Your task to perform on an android device: open sync settings in chrome Image 0: 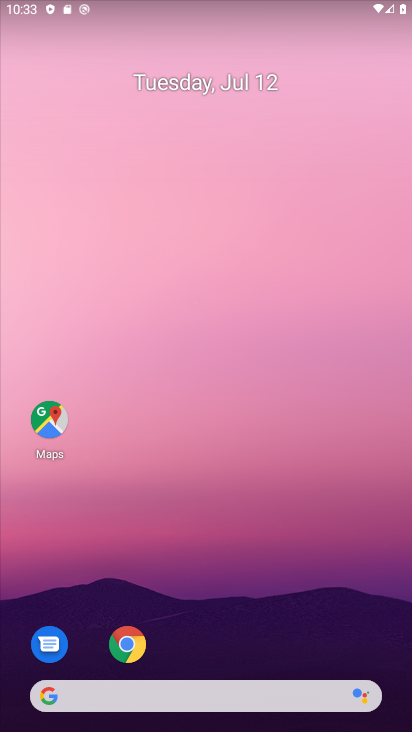
Step 0: click (125, 642)
Your task to perform on an android device: open sync settings in chrome Image 1: 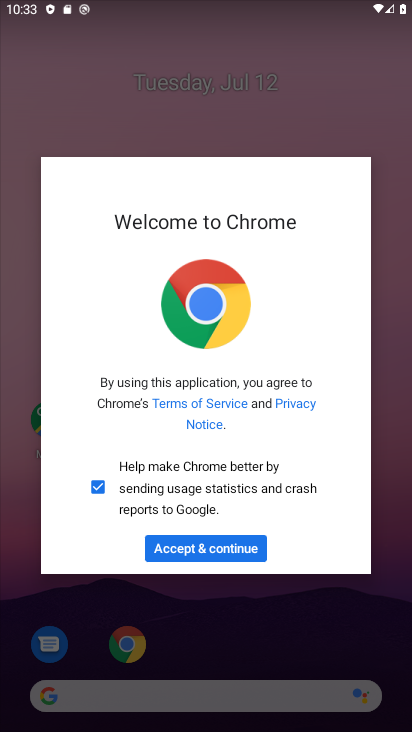
Step 1: click (192, 542)
Your task to perform on an android device: open sync settings in chrome Image 2: 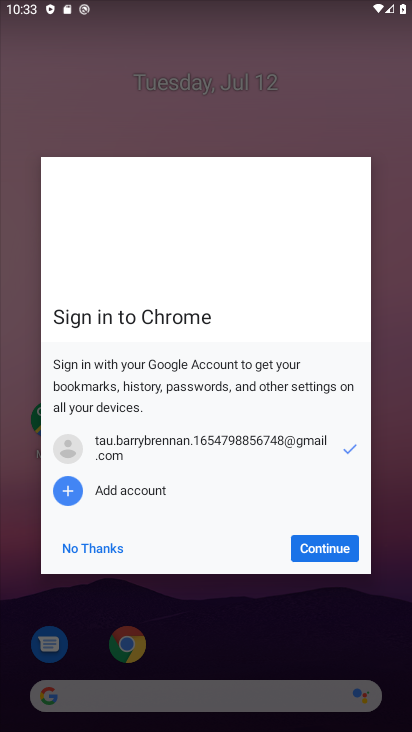
Step 2: click (339, 544)
Your task to perform on an android device: open sync settings in chrome Image 3: 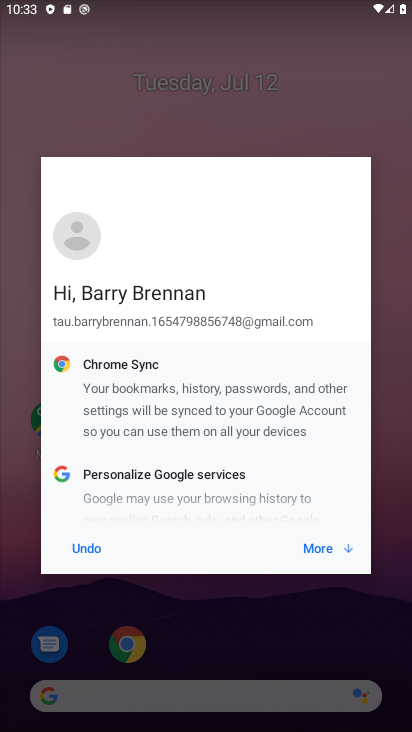
Step 3: click (339, 544)
Your task to perform on an android device: open sync settings in chrome Image 4: 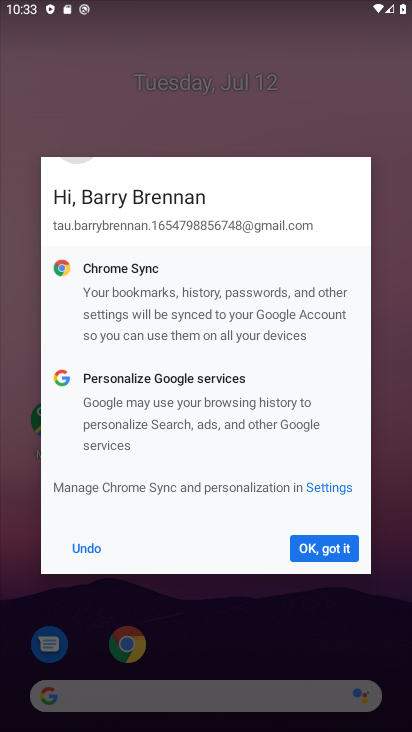
Step 4: click (339, 544)
Your task to perform on an android device: open sync settings in chrome Image 5: 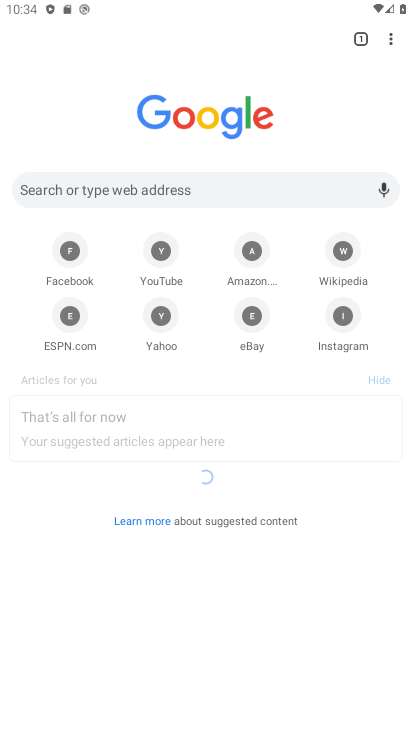
Step 5: click (387, 33)
Your task to perform on an android device: open sync settings in chrome Image 6: 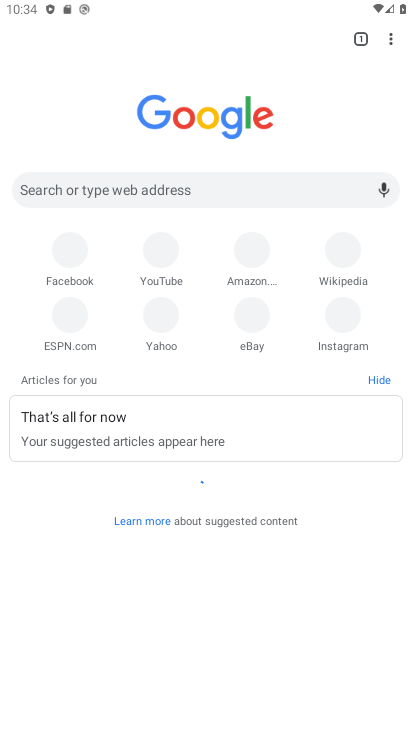
Step 6: click (389, 39)
Your task to perform on an android device: open sync settings in chrome Image 7: 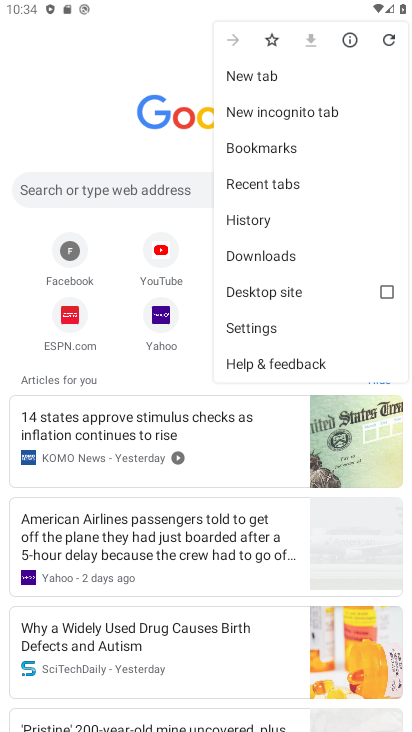
Step 7: click (277, 321)
Your task to perform on an android device: open sync settings in chrome Image 8: 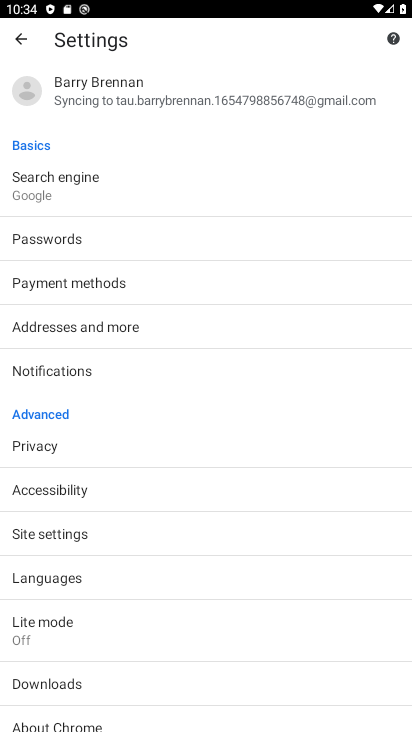
Step 8: click (93, 90)
Your task to perform on an android device: open sync settings in chrome Image 9: 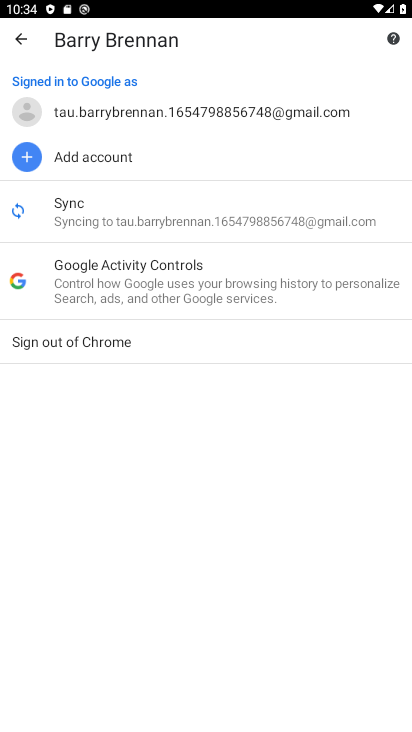
Step 9: click (109, 210)
Your task to perform on an android device: open sync settings in chrome Image 10: 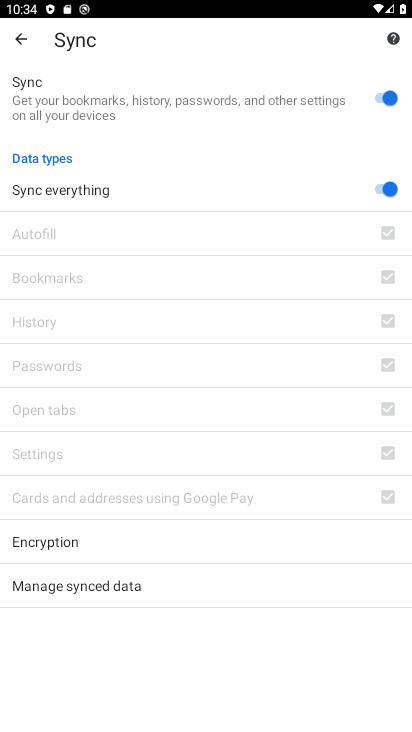
Step 10: task complete